Your task to perform on an android device: turn off data saver in the chrome app Image 0: 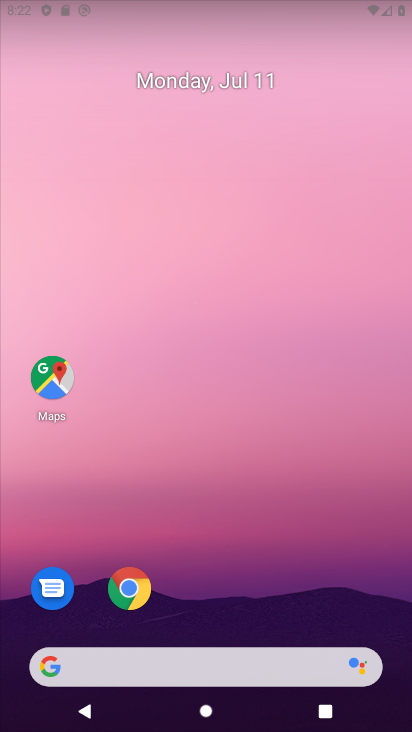
Step 0: click (123, 599)
Your task to perform on an android device: turn off data saver in the chrome app Image 1: 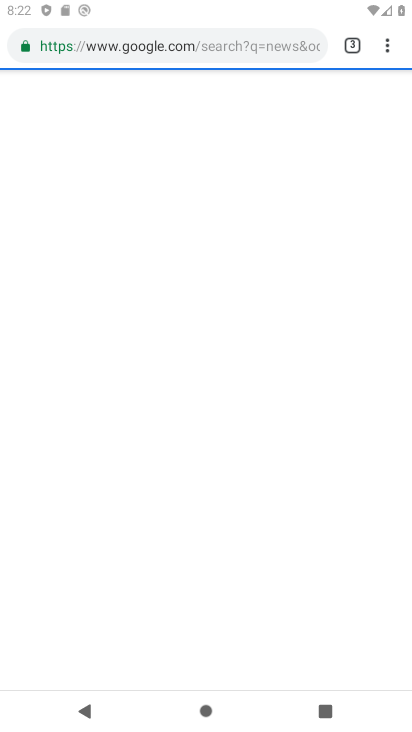
Step 1: click (385, 44)
Your task to perform on an android device: turn off data saver in the chrome app Image 2: 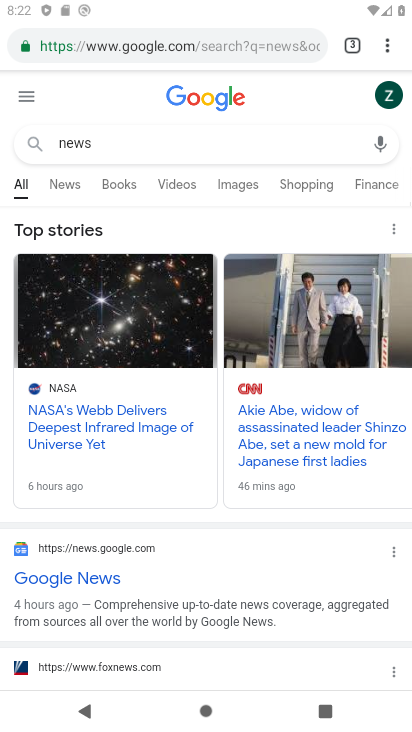
Step 2: click (385, 44)
Your task to perform on an android device: turn off data saver in the chrome app Image 3: 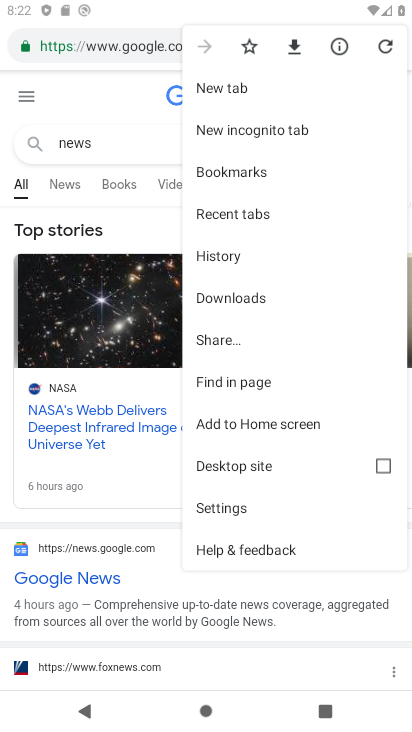
Step 3: click (245, 507)
Your task to perform on an android device: turn off data saver in the chrome app Image 4: 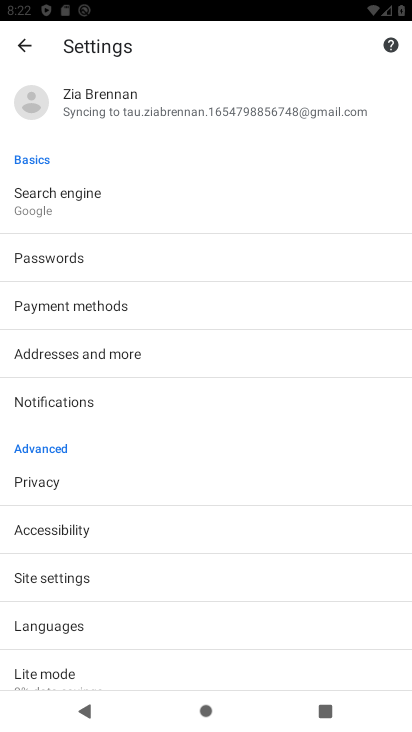
Step 4: click (79, 671)
Your task to perform on an android device: turn off data saver in the chrome app Image 5: 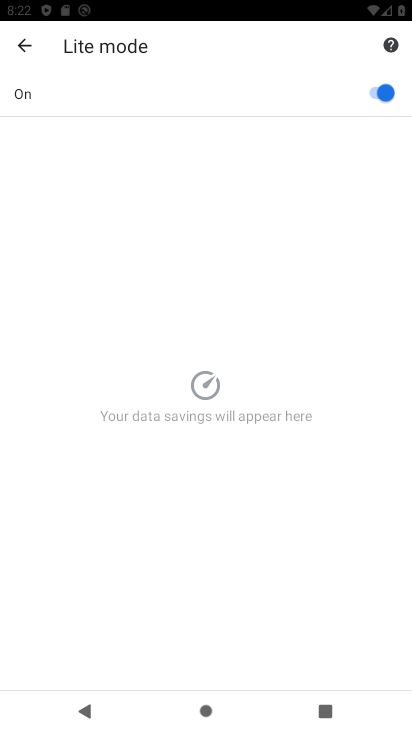
Step 5: click (387, 96)
Your task to perform on an android device: turn off data saver in the chrome app Image 6: 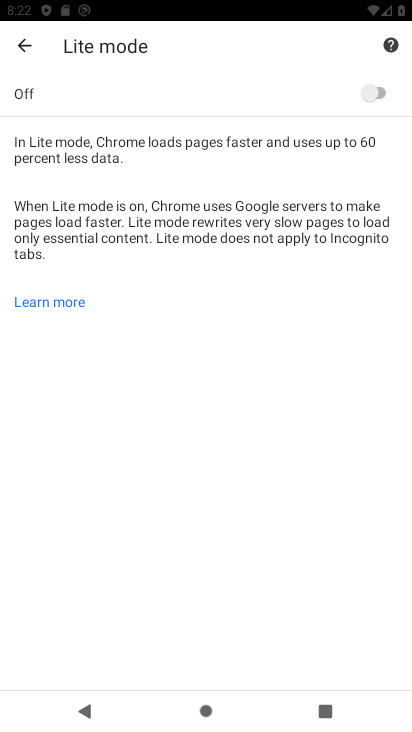
Step 6: task complete